Your task to perform on an android device: Search for a 1/2 in. x 1/2 in. x 24 in. 600 grit sander on Lowes.com Image 0: 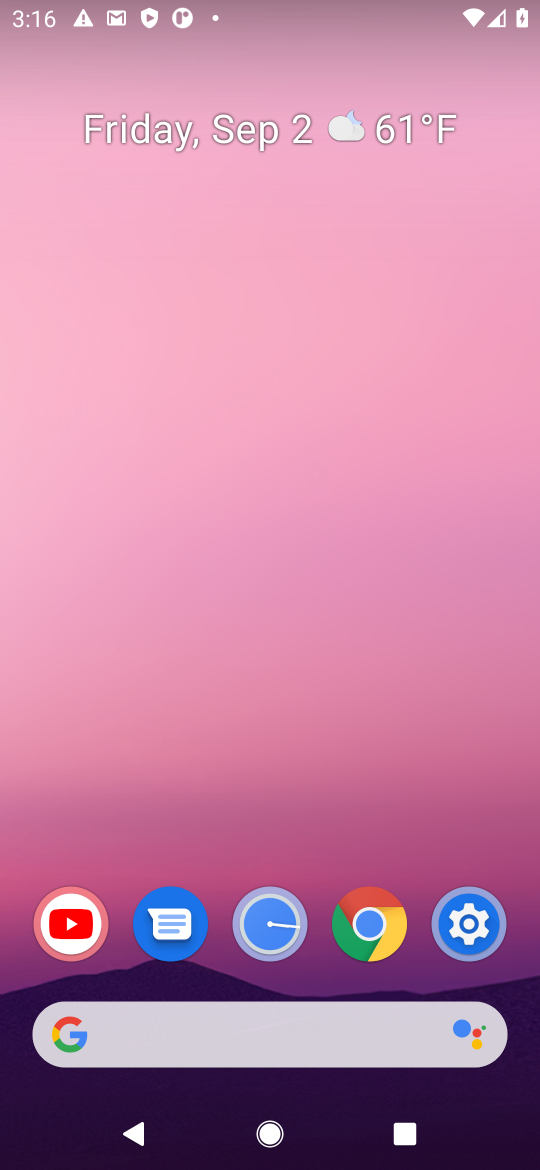
Step 0: press home button
Your task to perform on an android device: Search for a 1/2 in. x 1/2 in. x 24 in. 600 grit sander on Lowes.com Image 1: 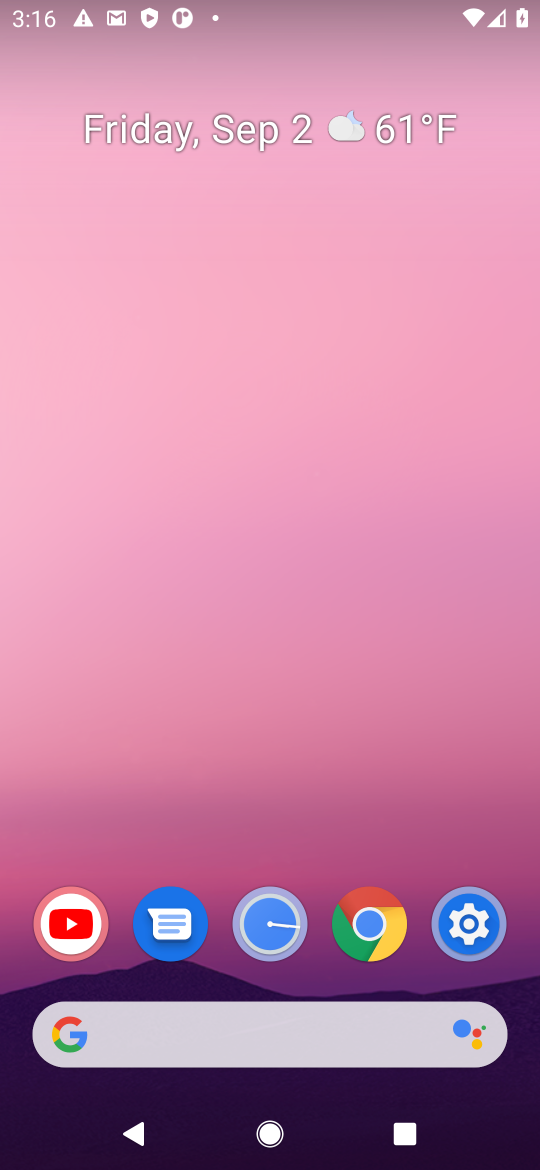
Step 1: click (392, 1051)
Your task to perform on an android device: Search for a 1/2 in. x 1/2 in. x 24 in. 600 grit sander on Lowes.com Image 2: 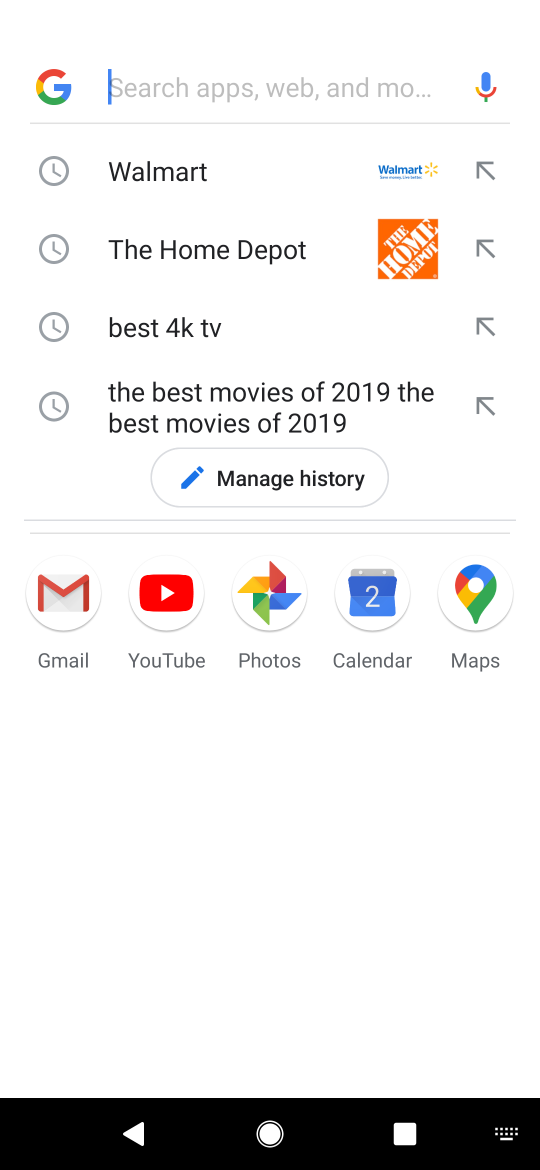
Step 2: press enter
Your task to perform on an android device: Search for a 1/2 in. x 1/2 in. x 24 in. 600 grit sander on Lowes.com Image 3: 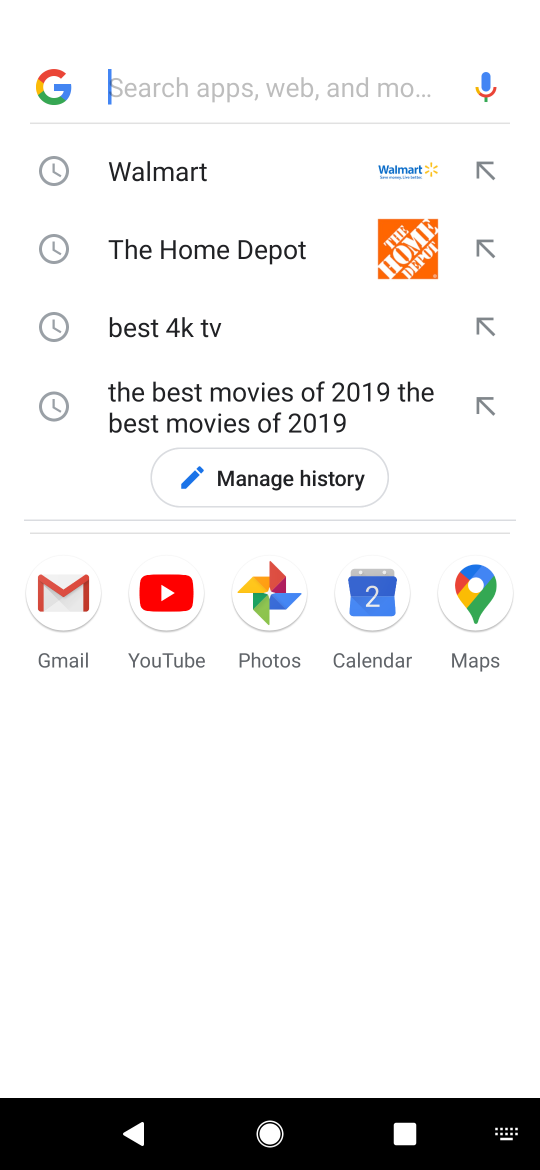
Step 3: type "lowes.com"
Your task to perform on an android device: Search for a 1/2 in. x 1/2 in. x 24 in. 600 grit sander on Lowes.com Image 4: 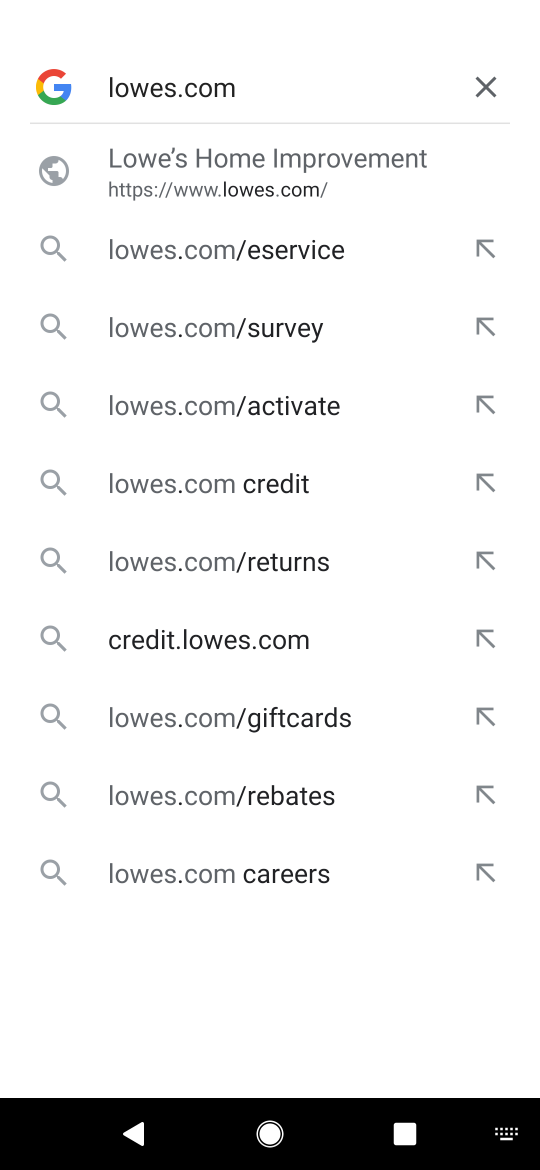
Step 4: click (301, 156)
Your task to perform on an android device: Search for a 1/2 in. x 1/2 in. x 24 in. 600 grit sander on Lowes.com Image 5: 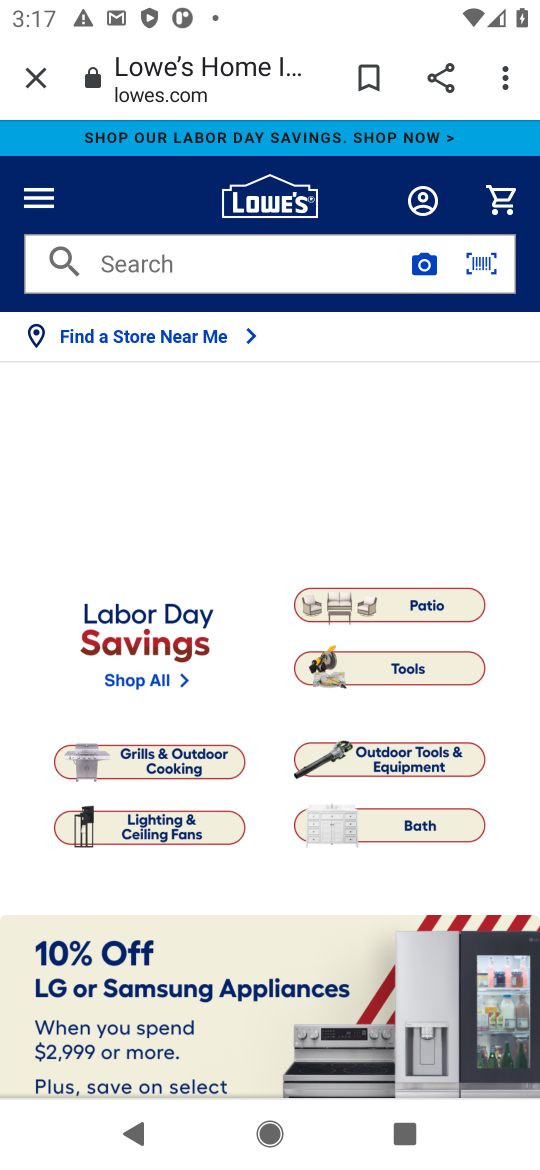
Step 5: click (280, 258)
Your task to perform on an android device: Search for a 1/2 in. x 1/2 in. x 24 in. 600 grit sander on Lowes.com Image 6: 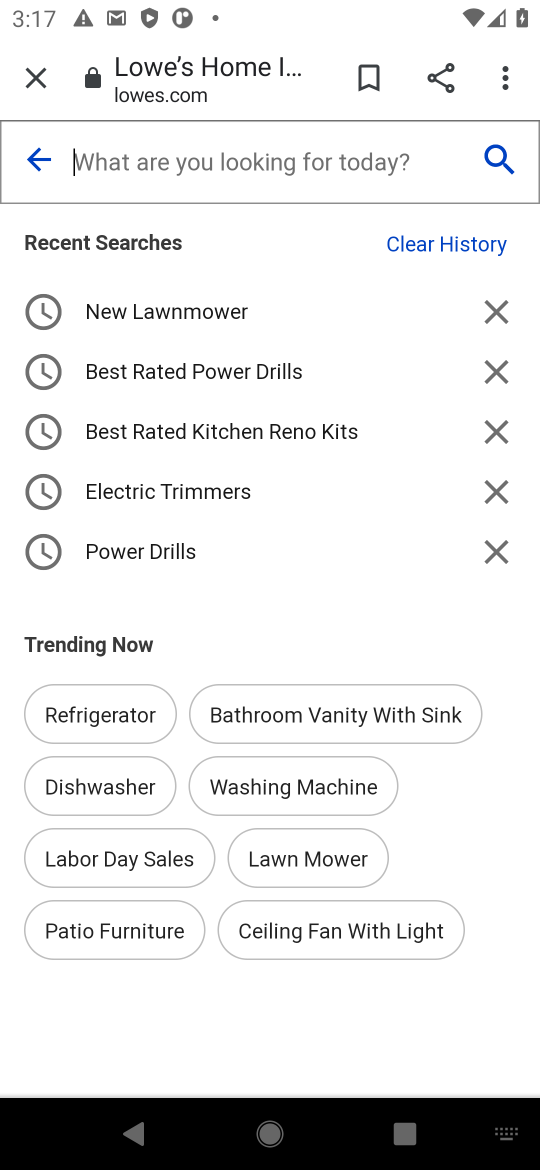
Step 6: type "1/2 in. x 1/2 in. x 24 in. 600 grit sander"
Your task to perform on an android device: Search for a 1/2 in. x 1/2 in. x 24 in. 600 grit sander on Lowes.com Image 7: 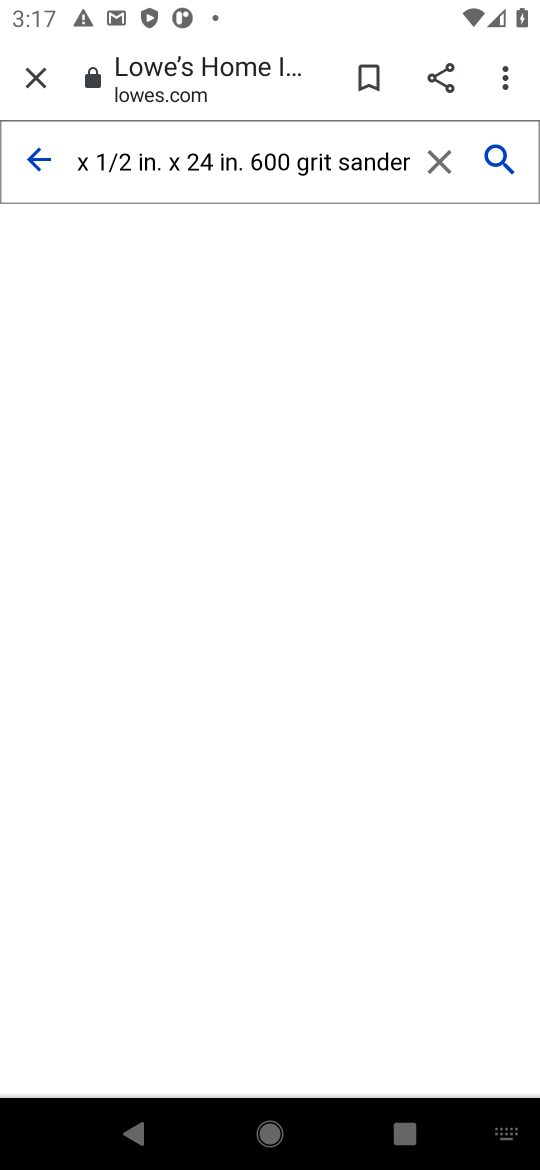
Step 7: click (503, 168)
Your task to perform on an android device: Search for a 1/2 in. x 1/2 in. x 24 in. 600 grit sander on Lowes.com Image 8: 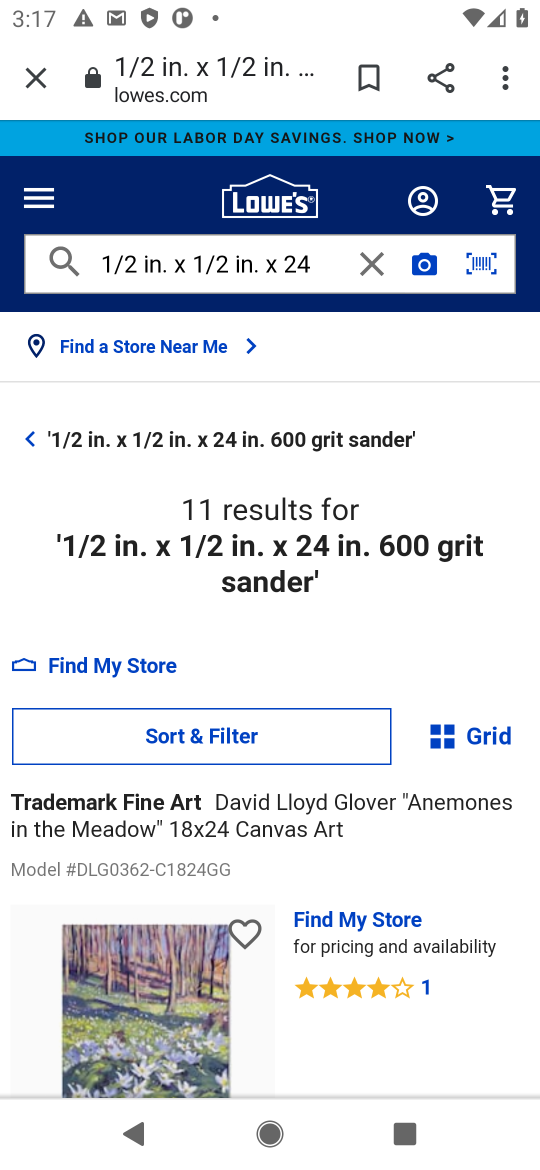
Step 8: task complete